Your task to perform on an android device: turn on wifi Image 0: 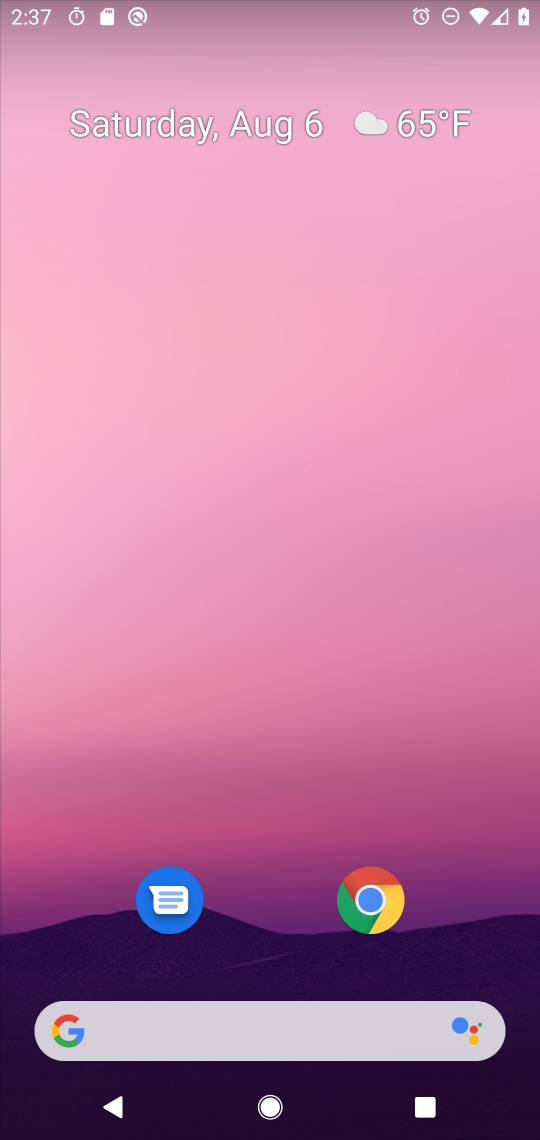
Step 0: drag from (275, 869) to (277, 72)
Your task to perform on an android device: turn on wifi Image 1: 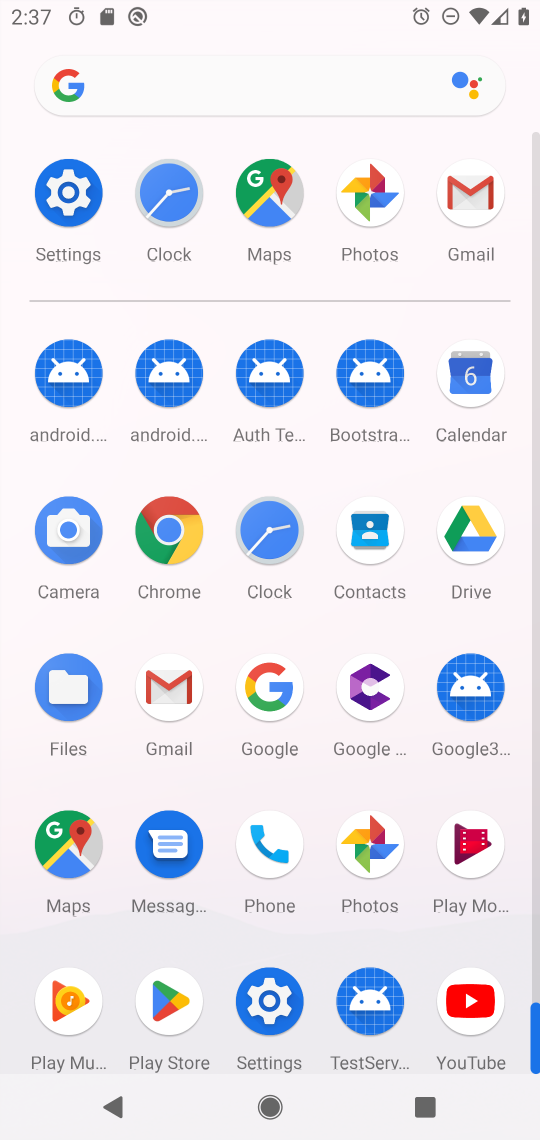
Step 1: click (73, 197)
Your task to perform on an android device: turn on wifi Image 2: 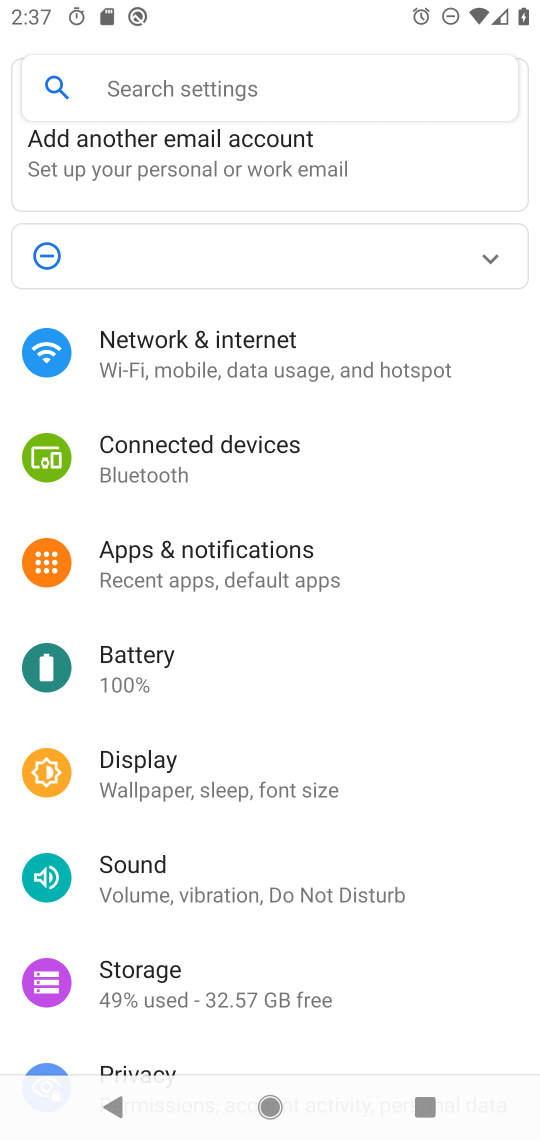
Step 2: click (194, 341)
Your task to perform on an android device: turn on wifi Image 3: 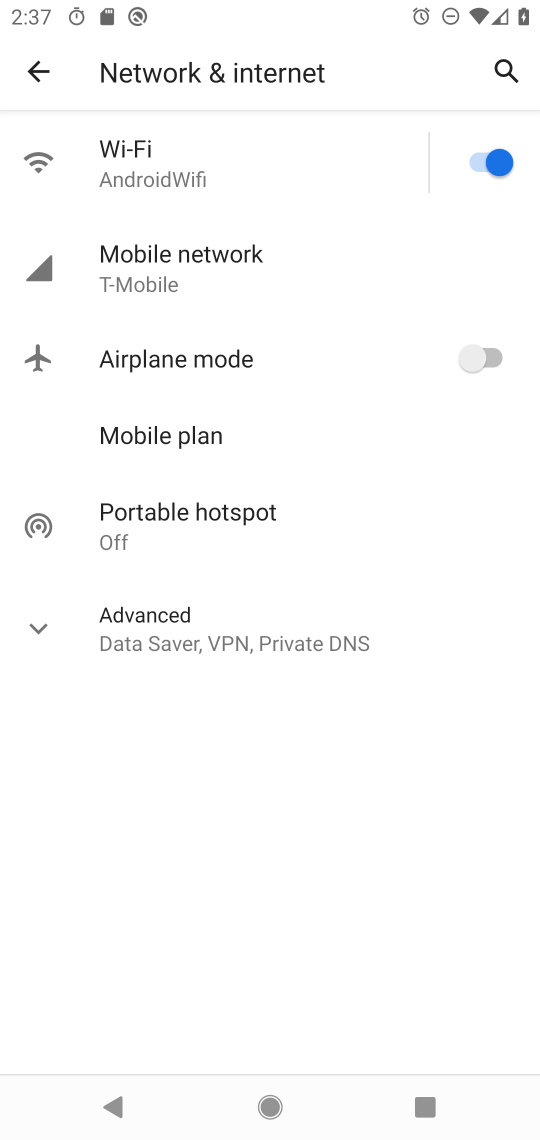
Step 3: task complete